Your task to perform on an android device: Open maps Image 0: 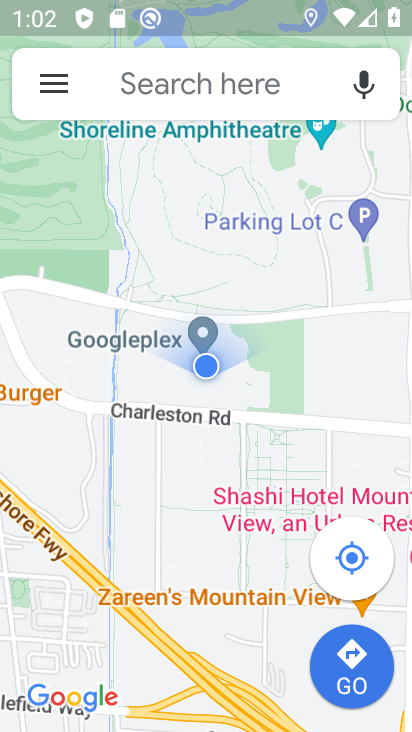
Step 0: task complete